Your task to perform on an android device: Open the stopwatch Image 0: 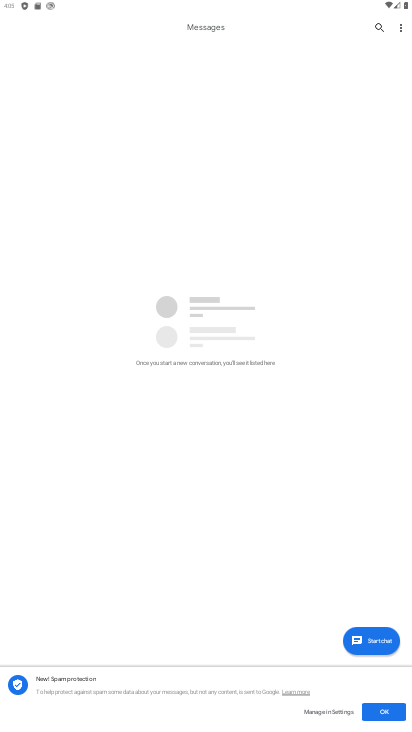
Step 0: press home button
Your task to perform on an android device: Open the stopwatch Image 1: 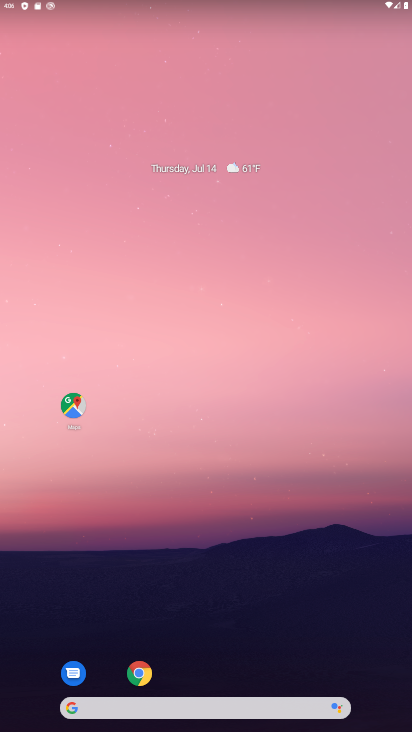
Step 1: drag from (222, 685) to (302, 152)
Your task to perform on an android device: Open the stopwatch Image 2: 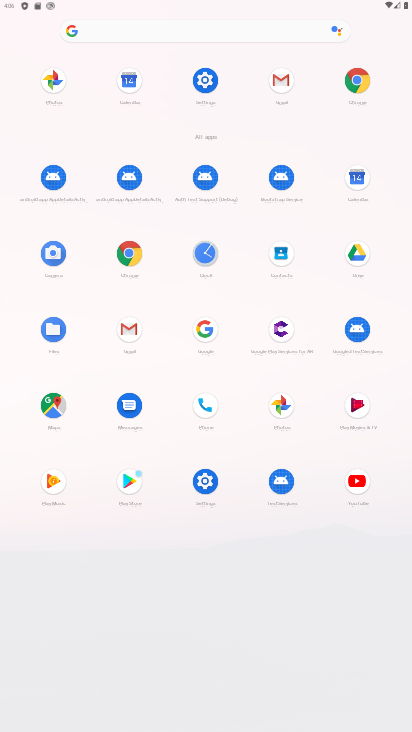
Step 2: click (210, 239)
Your task to perform on an android device: Open the stopwatch Image 3: 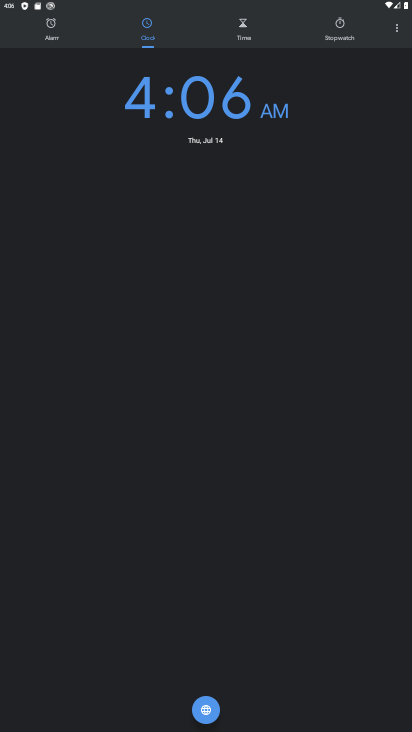
Step 3: click (326, 30)
Your task to perform on an android device: Open the stopwatch Image 4: 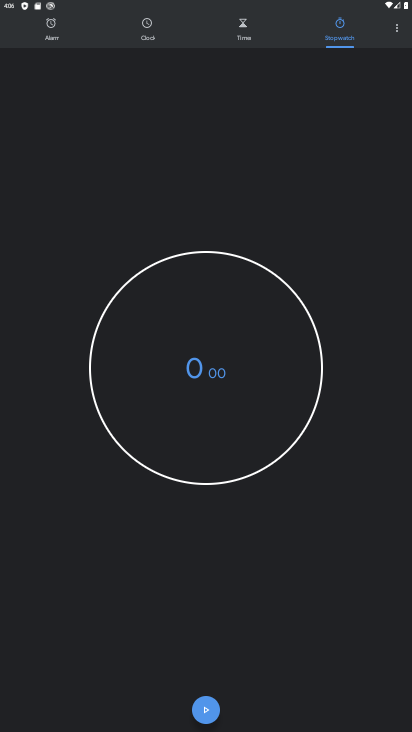
Step 4: click (213, 712)
Your task to perform on an android device: Open the stopwatch Image 5: 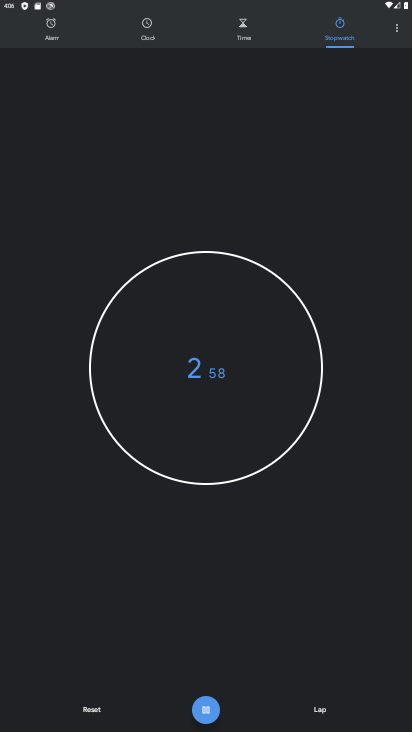
Step 5: click (213, 705)
Your task to perform on an android device: Open the stopwatch Image 6: 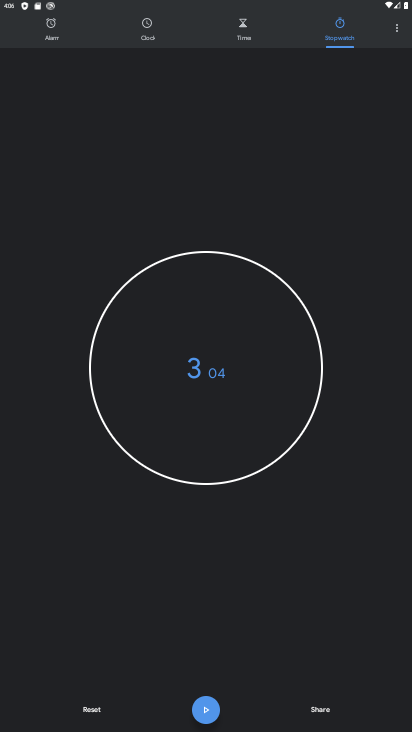
Step 6: task complete